Your task to perform on an android device: turn on sleep mode Image 0: 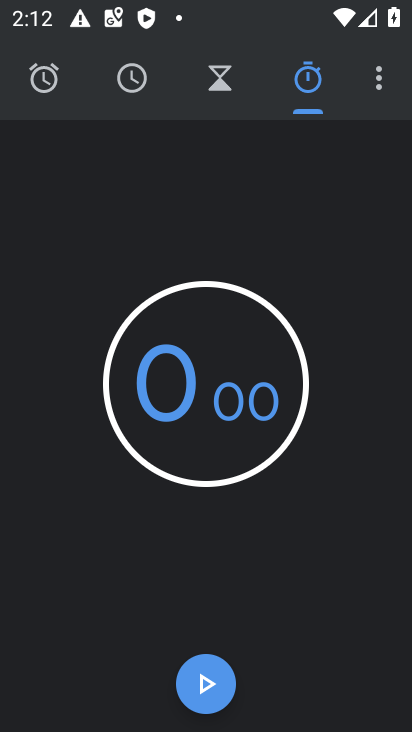
Step 0: press home button
Your task to perform on an android device: turn on sleep mode Image 1: 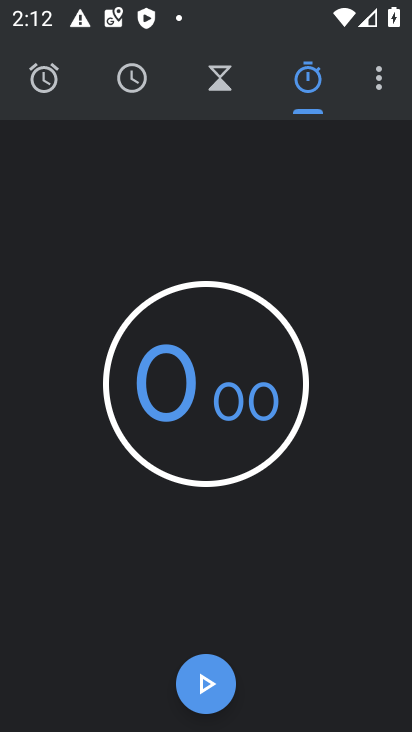
Step 1: press home button
Your task to perform on an android device: turn on sleep mode Image 2: 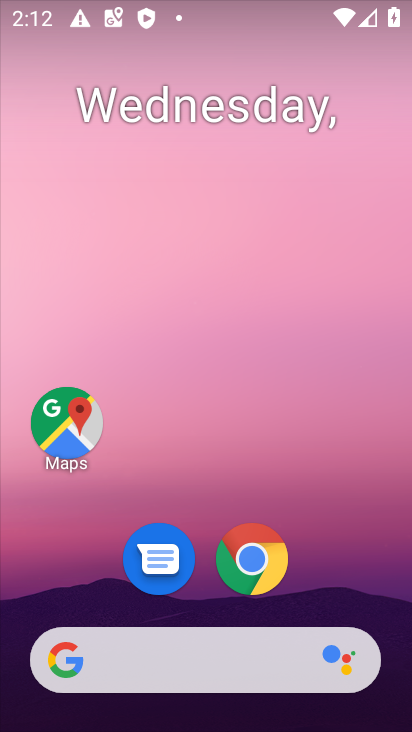
Step 2: drag from (210, 561) to (193, 15)
Your task to perform on an android device: turn on sleep mode Image 3: 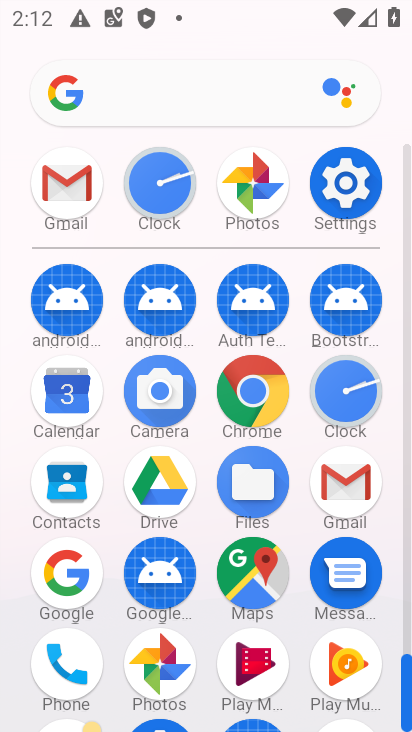
Step 3: click (347, 181)
Your task to perform on an android device: turn on sleep mode Image 4: 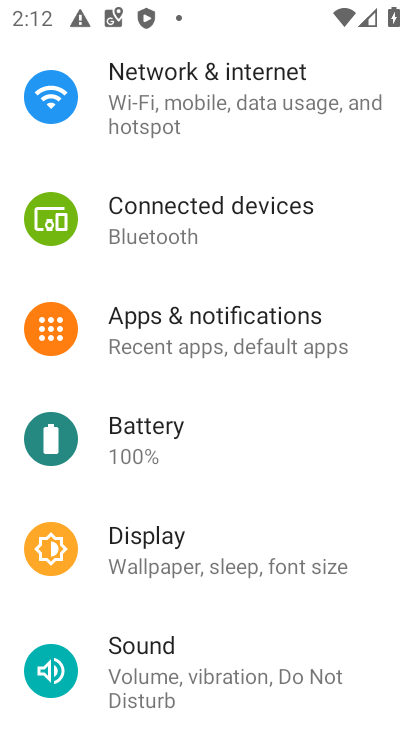
Step 4: drag from (250, 650) to (248, 238)
Your task to perform on an android device: turn on sleep mode Image 5: 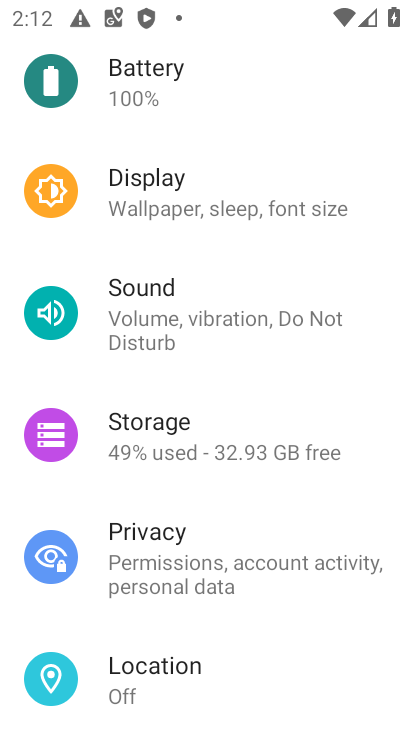
Step 5: click (207, 204)
Your task to perform on an android device: turn on sleep mode Image 6: 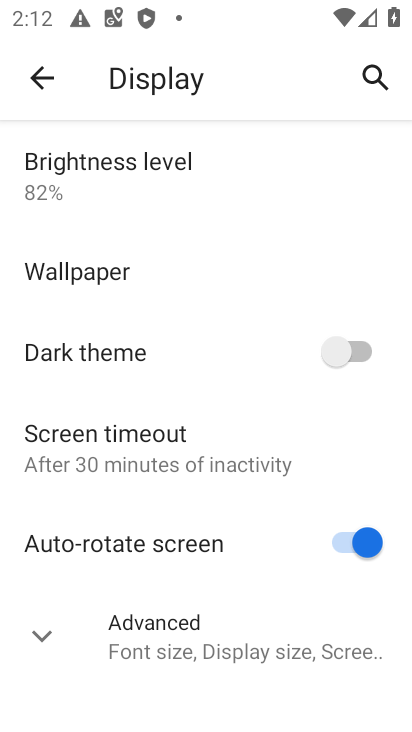
Step 6: task complete